Your task to perform on an android device: Clear all items from cart on costco. Add usb-c to usb-a to the cart on costco Image 0: 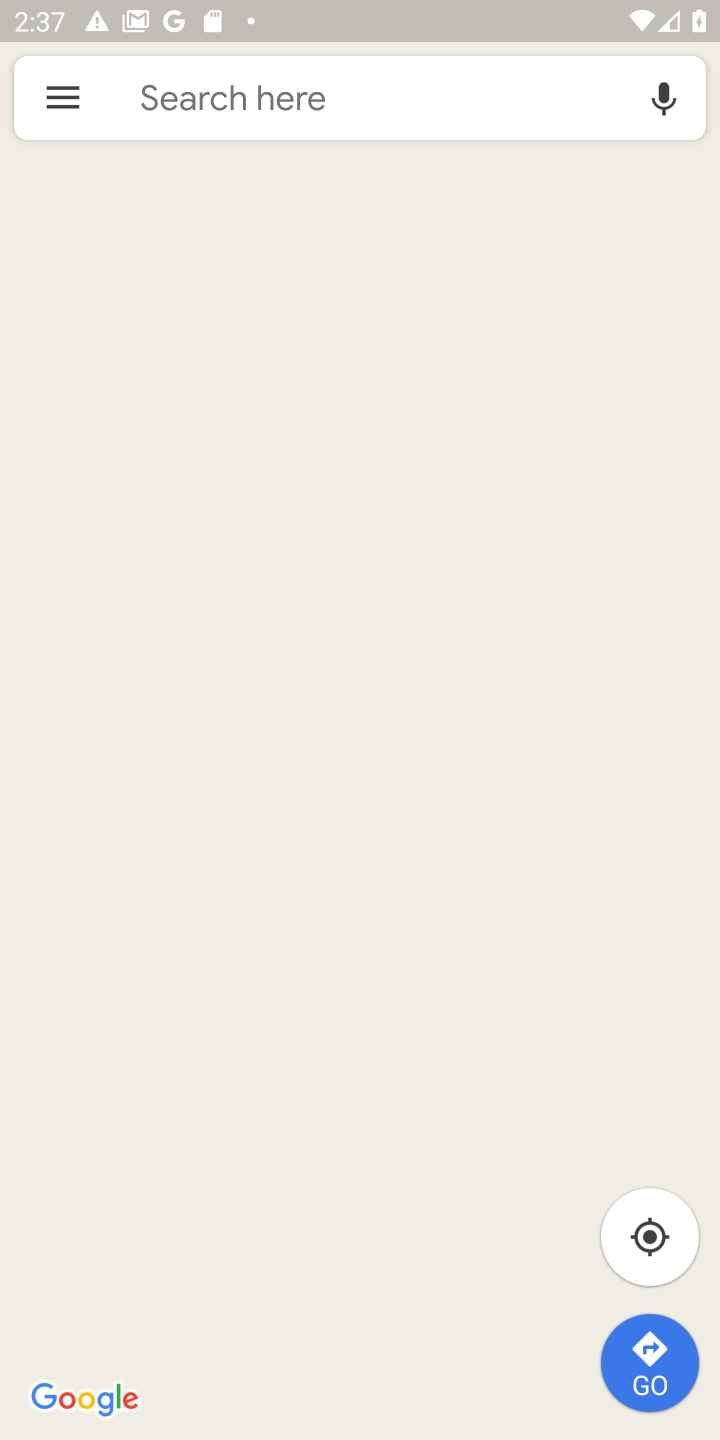
Step 0: press home button
Your task to perform on an android device: Clear all items from cart on costco. Add usb-c to usb-a to the cart on costco Image 1: 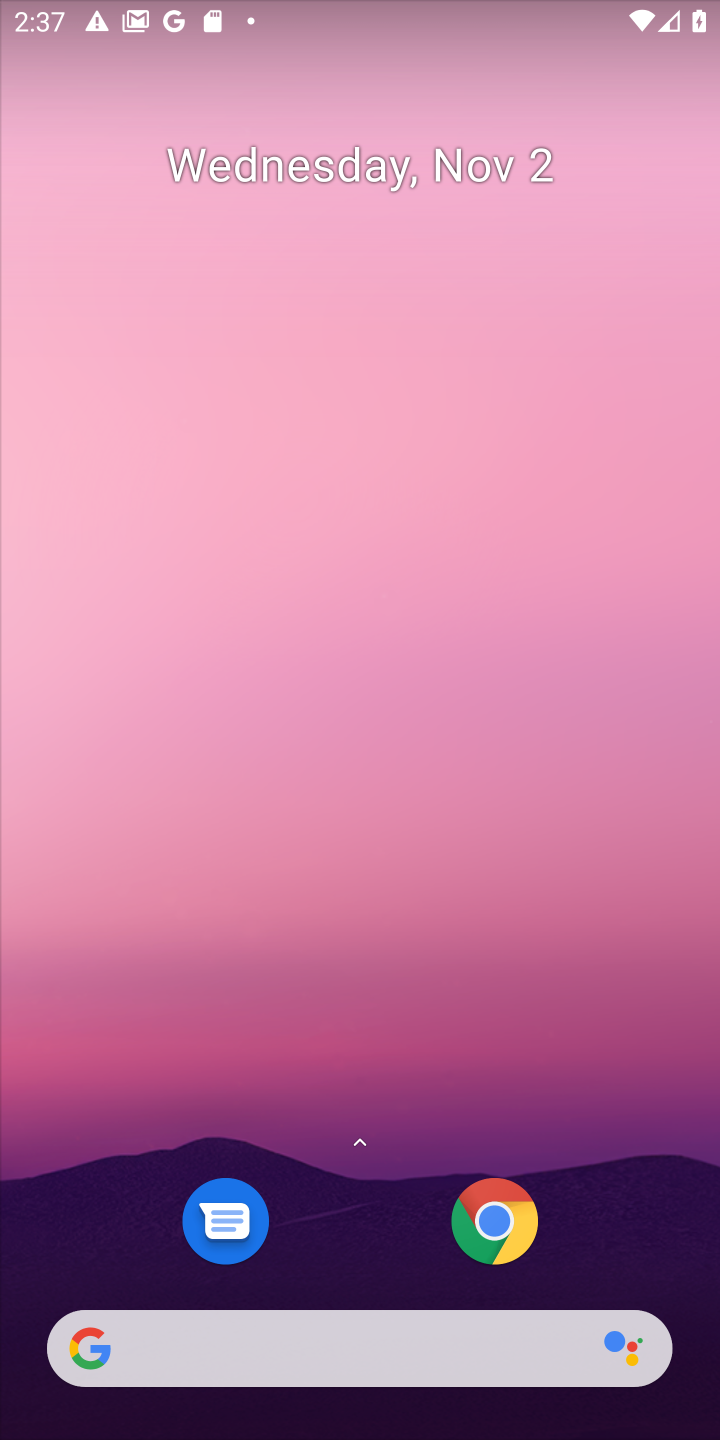
Step 1: click (446, 1336)
Your task to perform on an android device: Clear all items from cart on costco. Add usb-c to usb-a to the cart on costco Image 2: 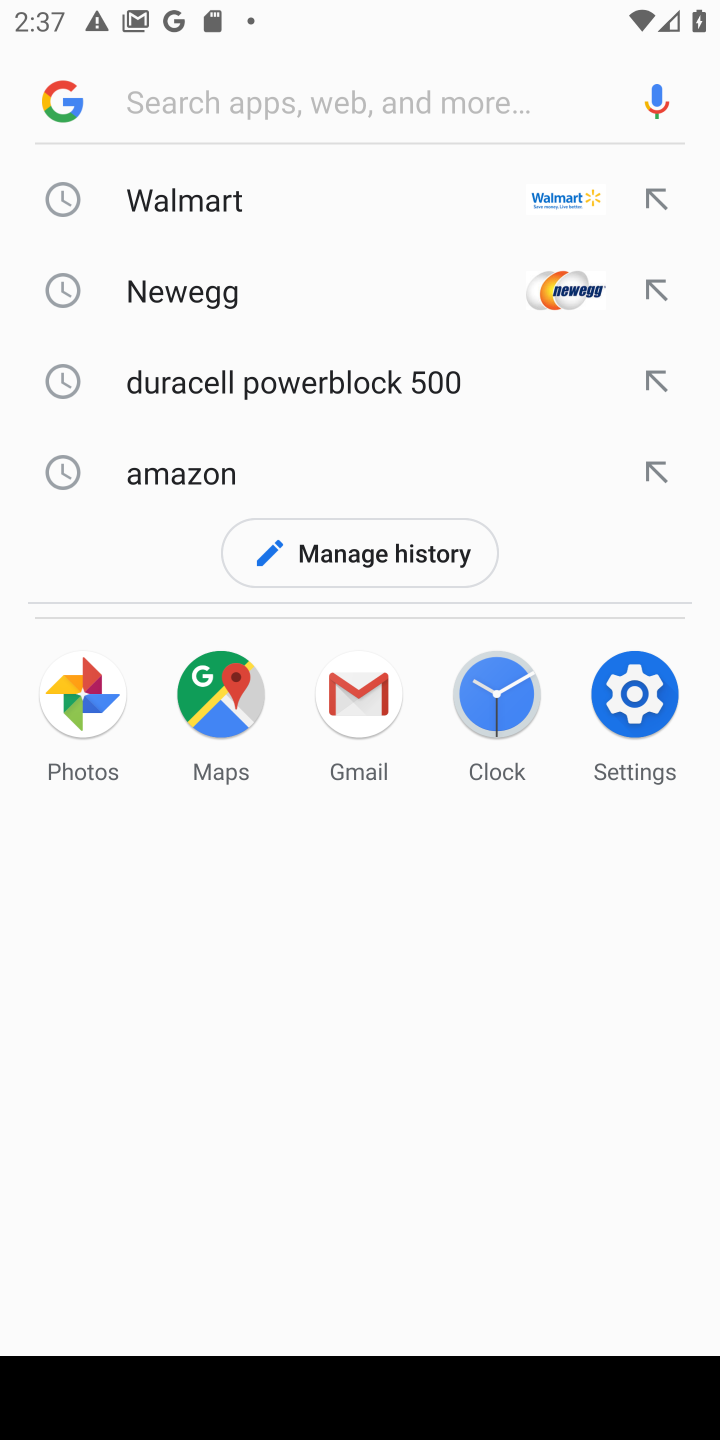
Step 2: click (297, 195)
Your task to perform on an android device: Clear all items from cart on costco. Add usb-c to usb-a to the cart on costco Image 3: 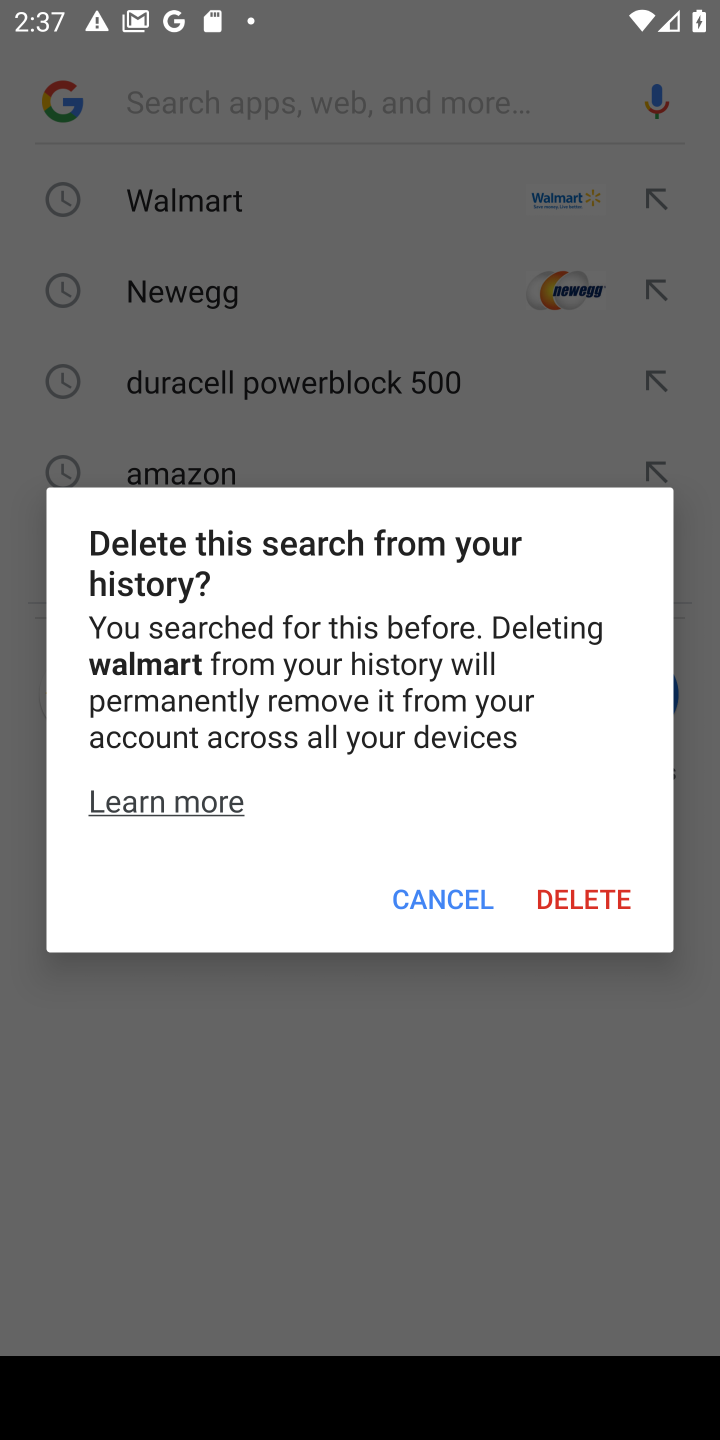
Step 3: click (473, 919)
Your task to perform on an android device: Clear all items from cart on costco. Add usb-c to usb-a to the cart on costco Image 4: 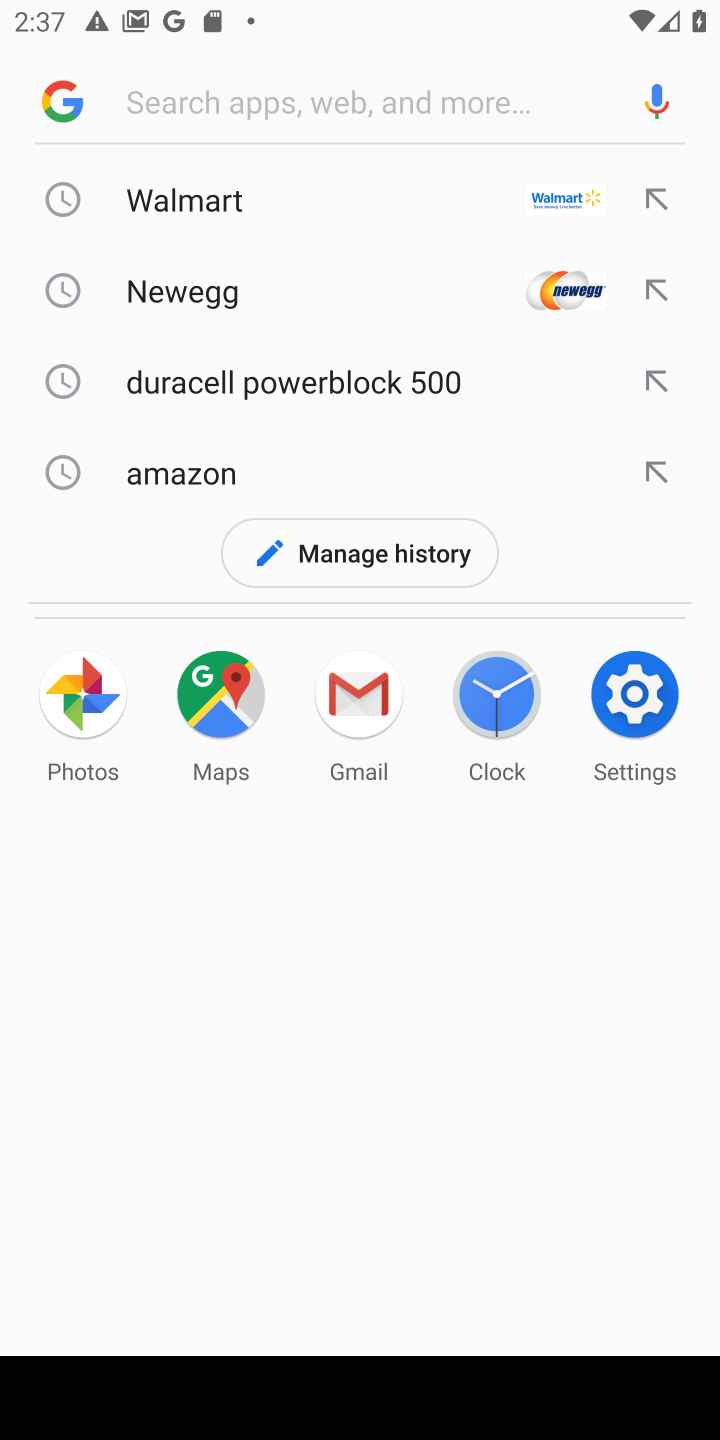
Step 4: click (322, 193)
Your task to perform on an android device: Clear all items from cart on costco. Add usb-c to usb-a to the cart on costco Image 5: 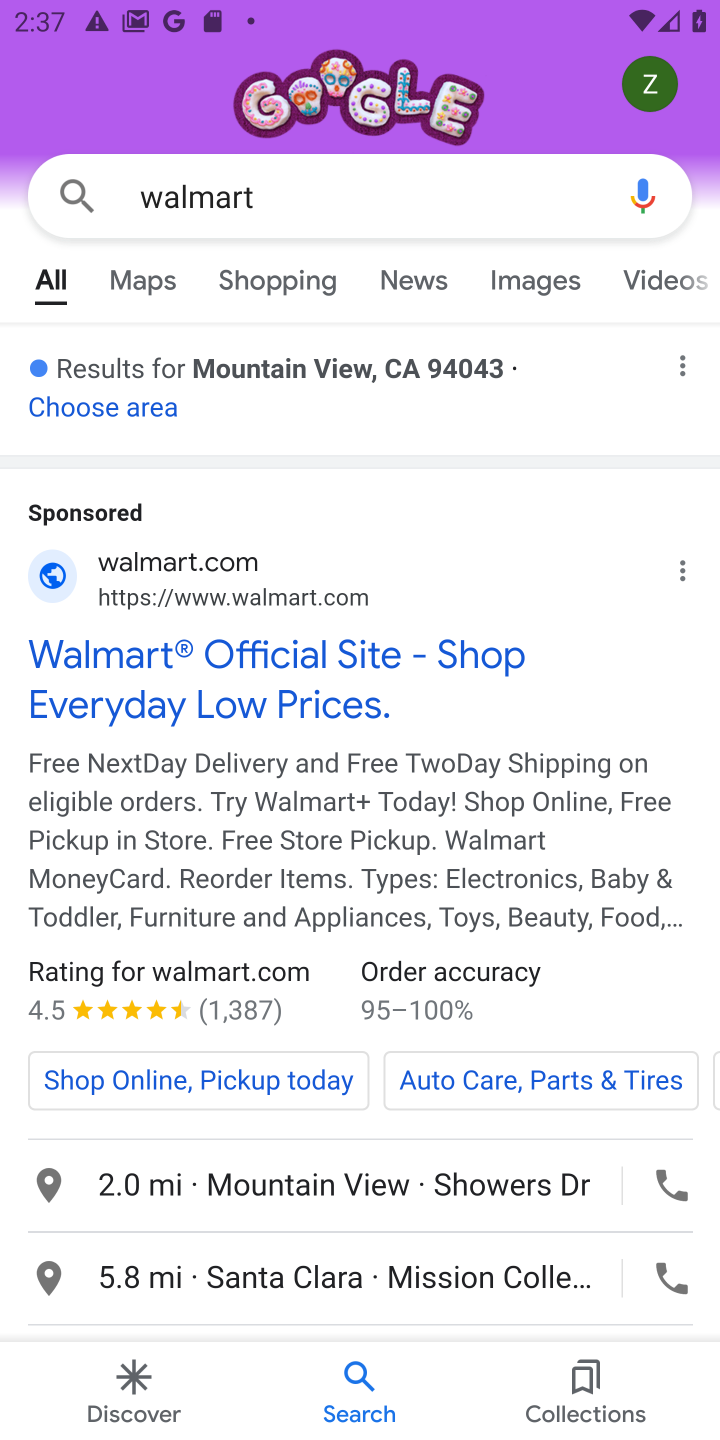
Step 5: click (287, 640)
Your task to perform on an android device: Clear all items from cart on costco. Add usb-c to usb-a to the cart on costco Image 6: 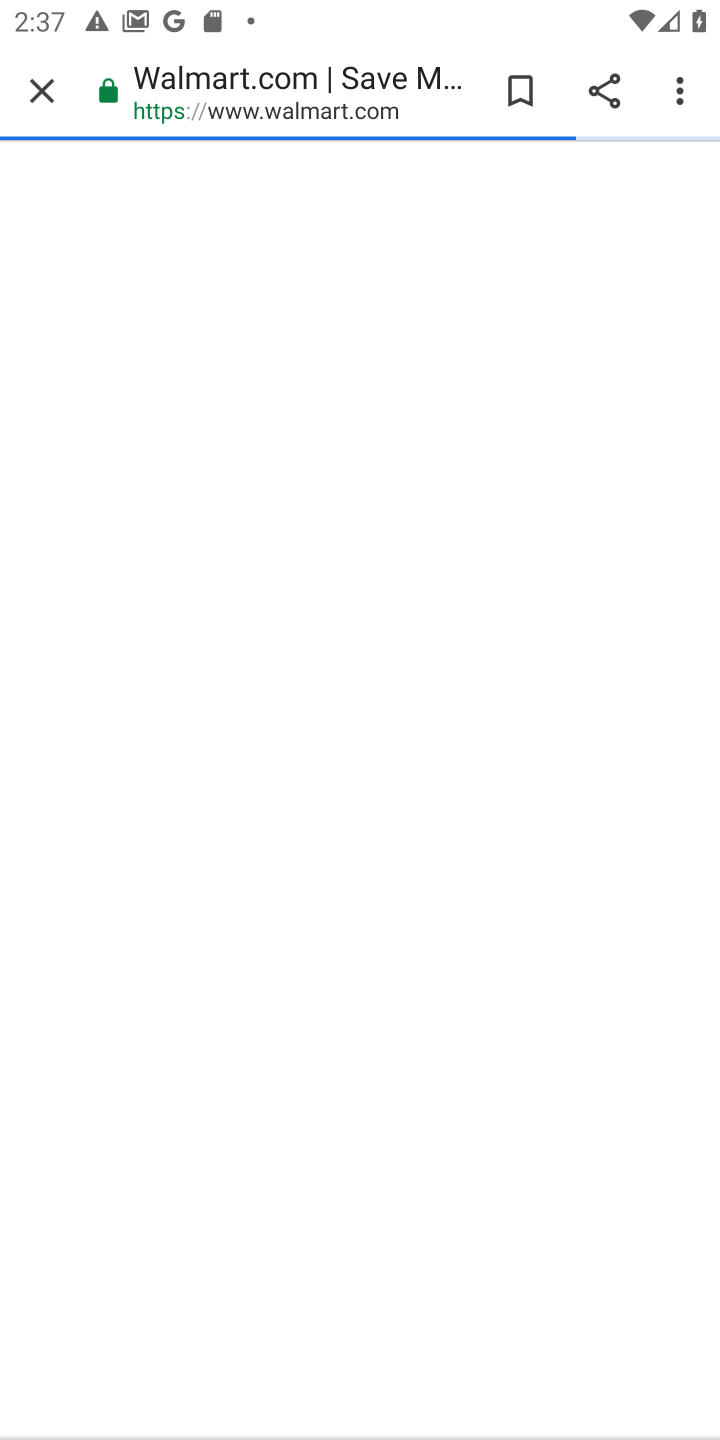
Step 6: press home button
Your task to perform on an android device: Clear all items from cart on costco. Add usb-c to usb-a to the cart on costco Image 7: 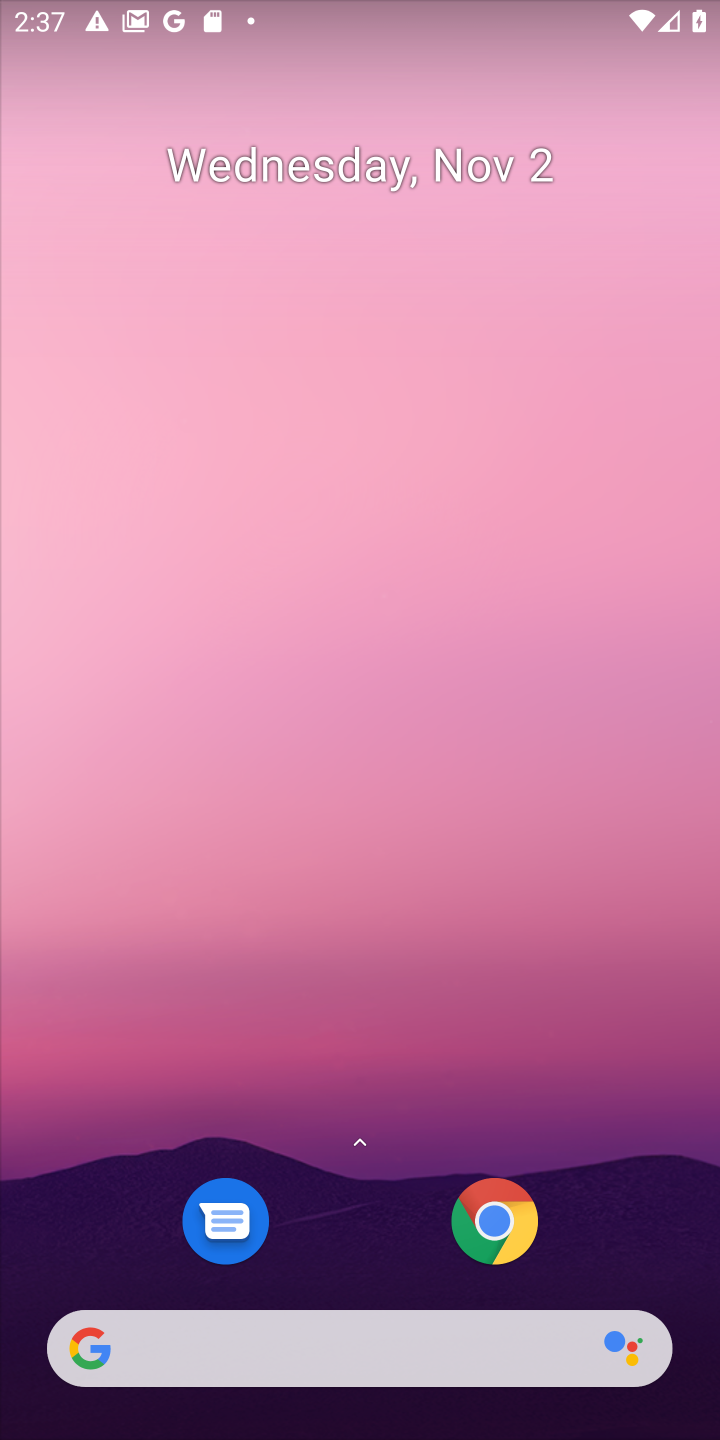
Step 7: click (286, 1335)
Your task to perform on an android device: Clear all items from cart on costco. Add usb-c to usb-a to the cart on costco Image 8: 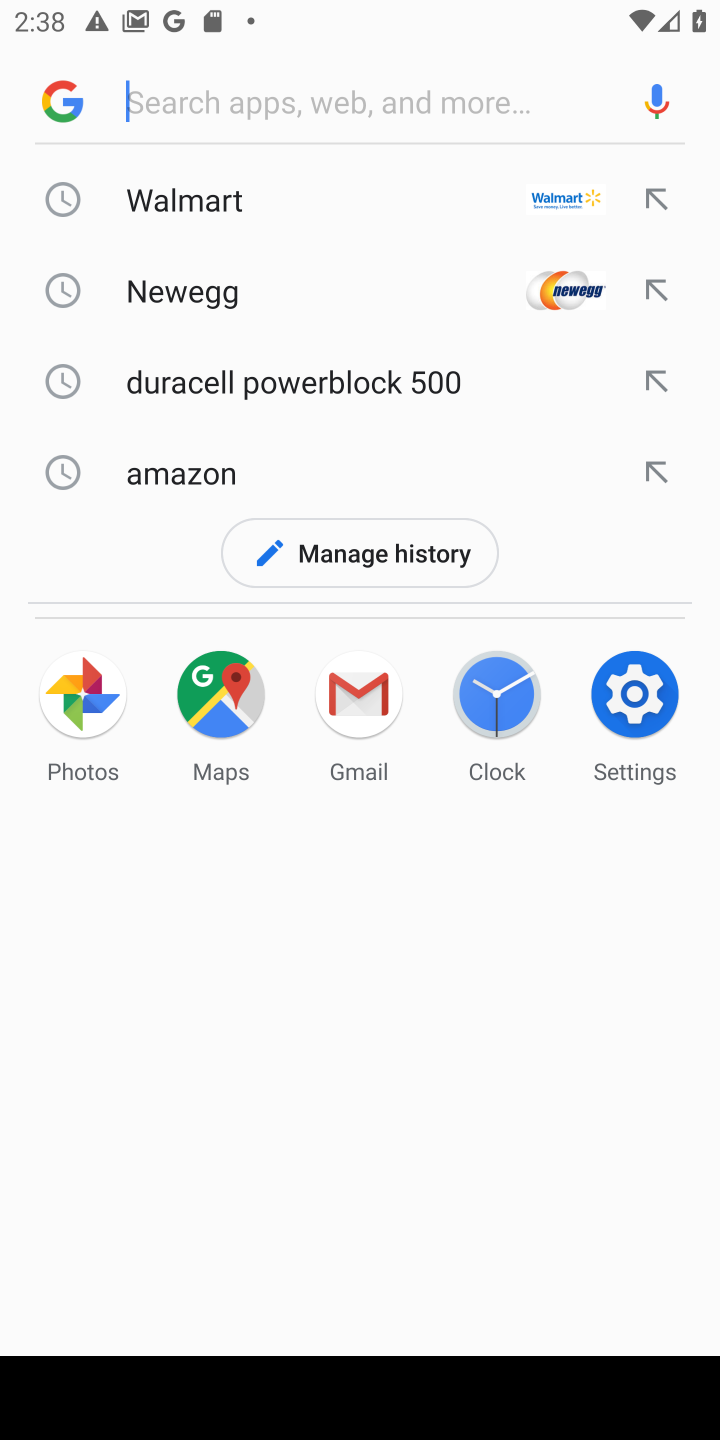
Step 8: type "costco"
Your task to perform on an android device: Clear all items from cart on costco. Add usb-c to usb-a to the cart on costco Image 9: 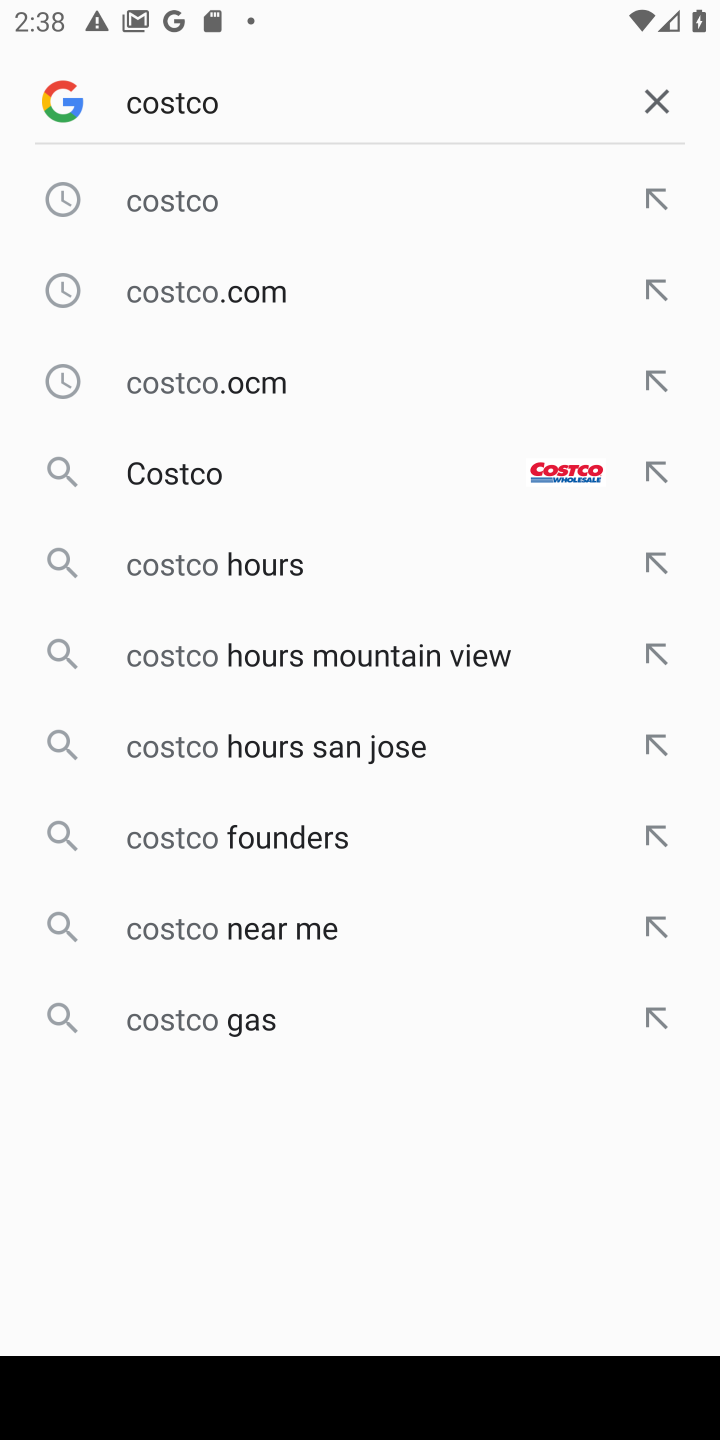
Step 9: click (260, 475)
Your task to perform on an android device: Clear all items from cart on costco. Add usb-c to usb-a to the cart on costco Image 10: 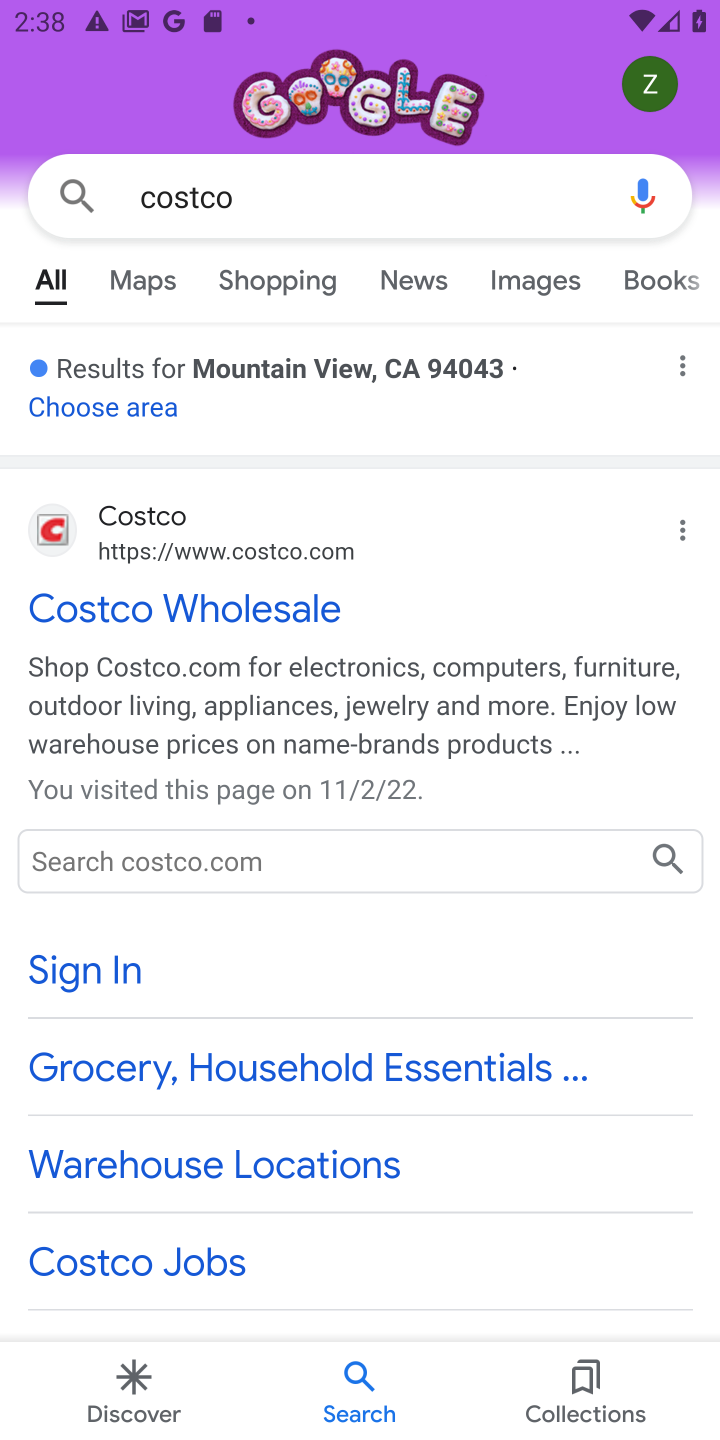
Step 10: click (280, 621)
Your task to perform on an android device: Clear all items from cart on costco. Add usb-c to usb-a to the cart on costco Image 11: 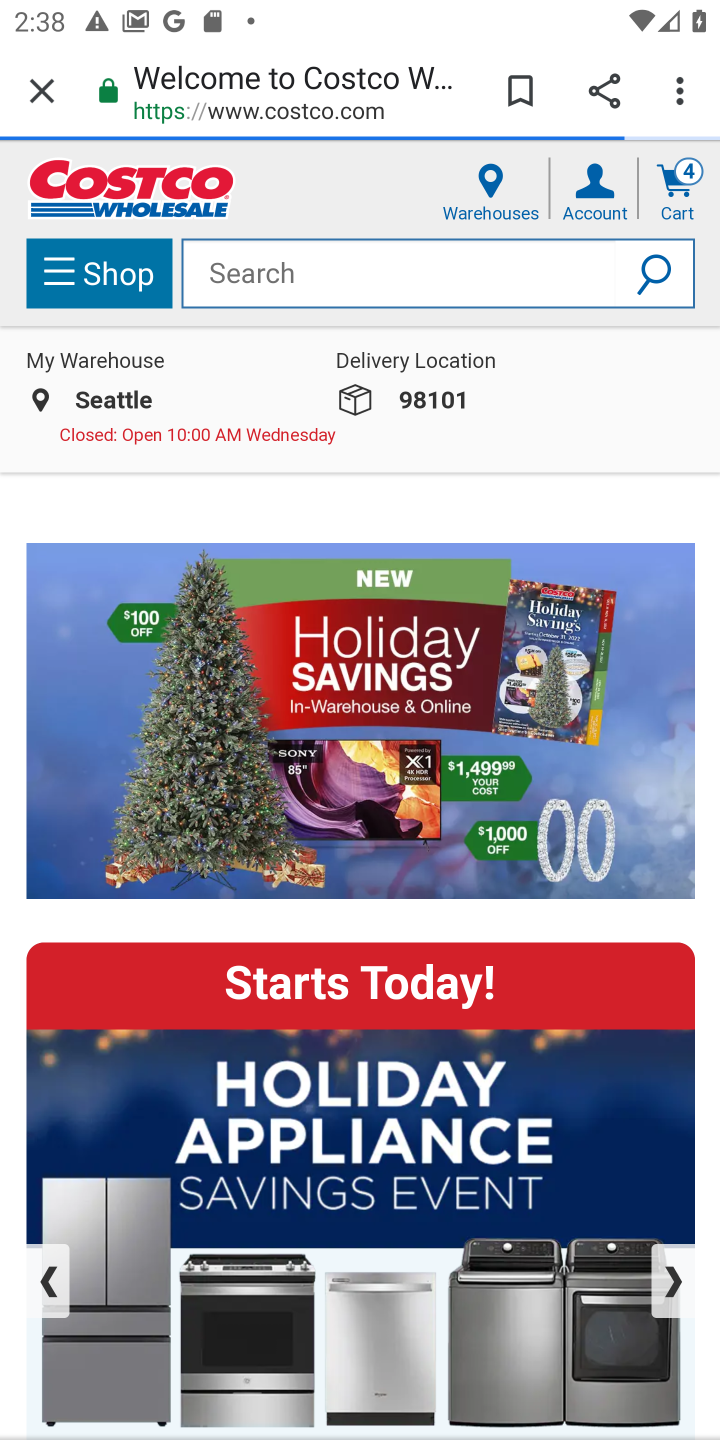
Step 11: click (415, 301)
Your task to perform on an android device: Clear all items from cart on costco. Add usb-c to usb-a to the cart on costco Image 12: 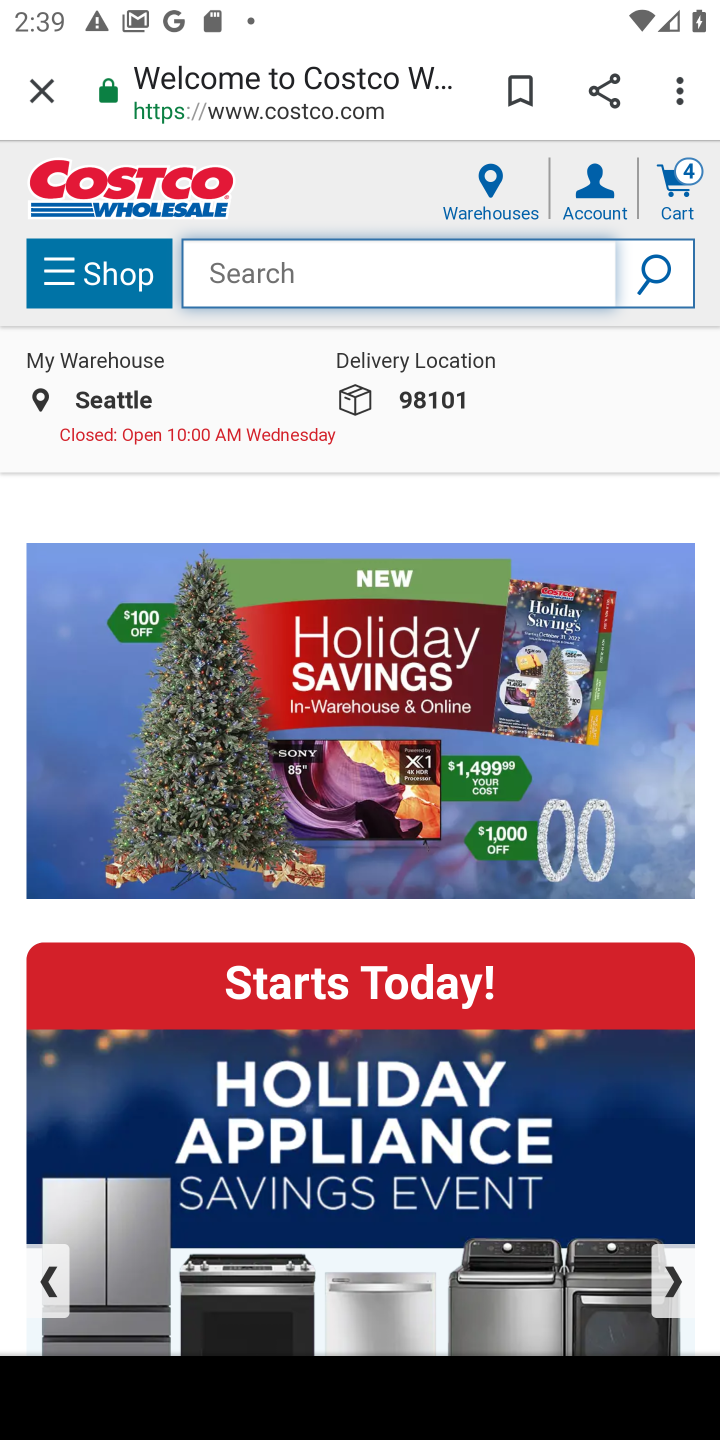
Step 12: task complete